Your task to perform on an android device: Open location settings Image 0: 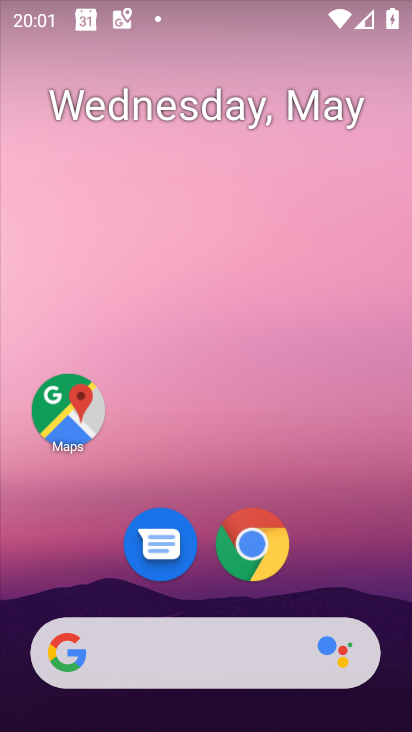
Step 0: drag from (241, 485) to (216, 78)
Your task to perform on an android device: Open location settings Image 1: 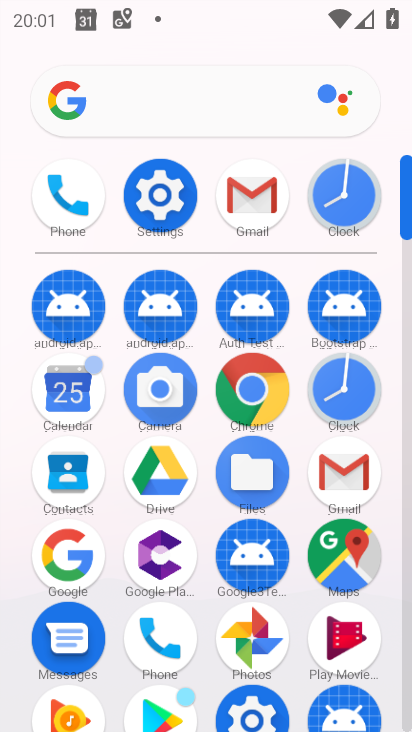
Step 1: click (165, 205)
Your task to perform on an android device: Open location settings Image 2: 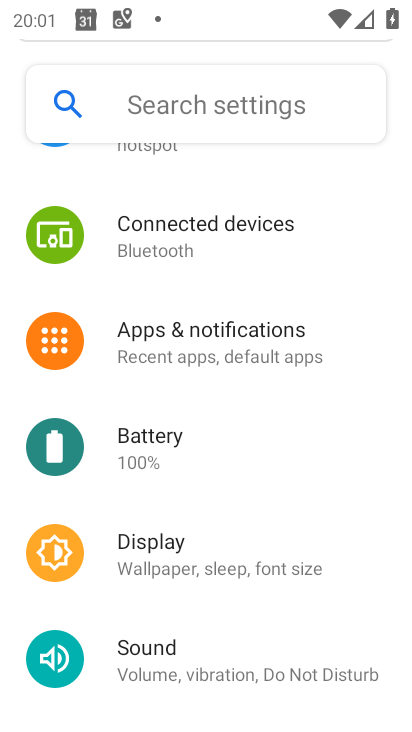
Step 2: drag from (111, 685) to (186, 172)
Your task to perform on an android device: Open location settings Image 3: 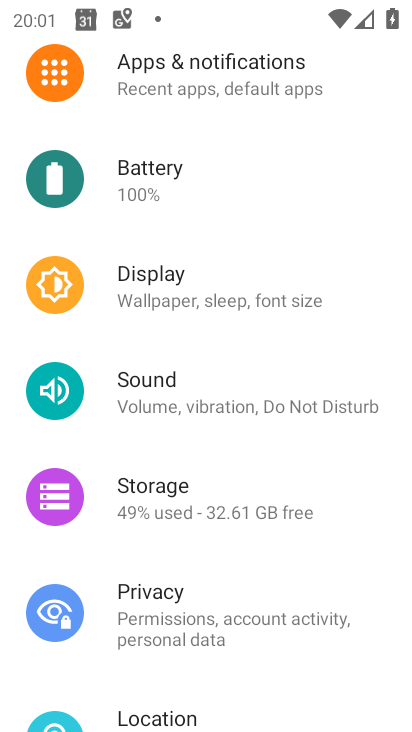
Step 3: click (145, 725)
Your task to perform on an android device: Open location settings Image 4: 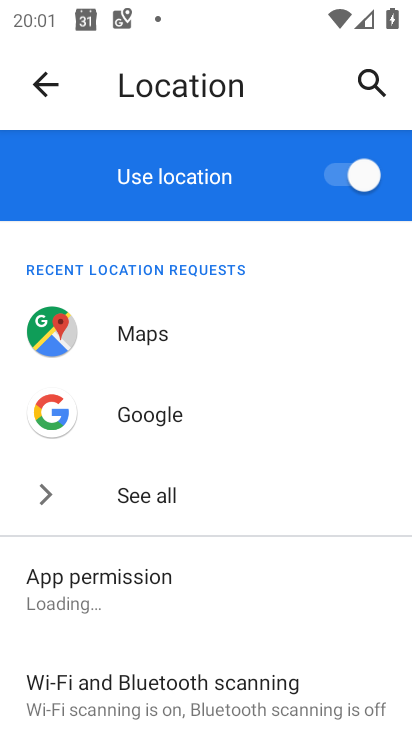
Step 4: task complete